Your task to perform on an android device: Turn on the flashlight Image 0: 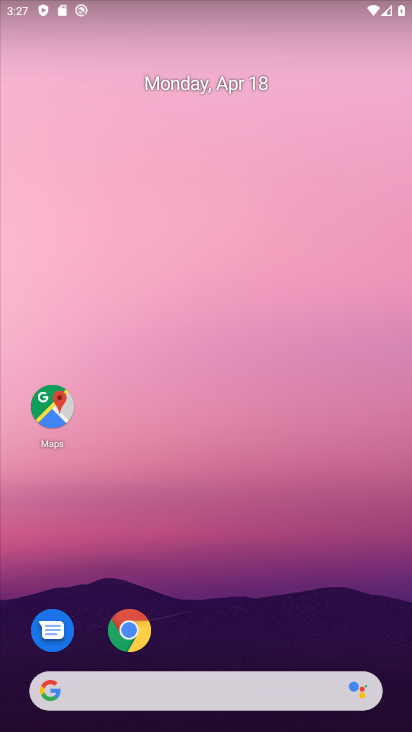
Step 0: drag from (273, 187) to (272, 361)
Your task to perform on an android device: Turn on the flashlight Image 1: 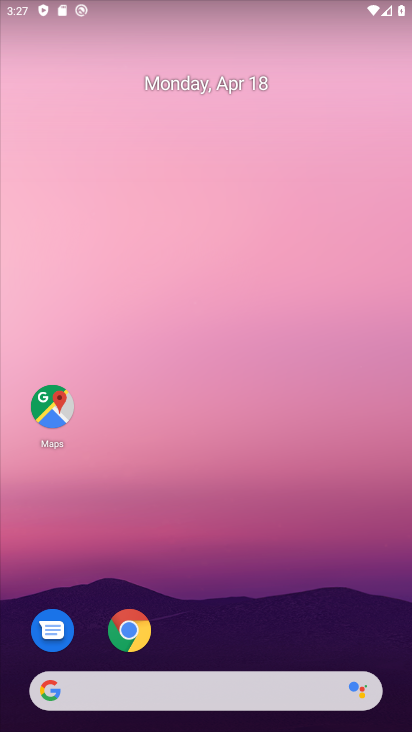
Step 1: task complete